Your task to perform on an android device: What's on my calendar today? Image 0: 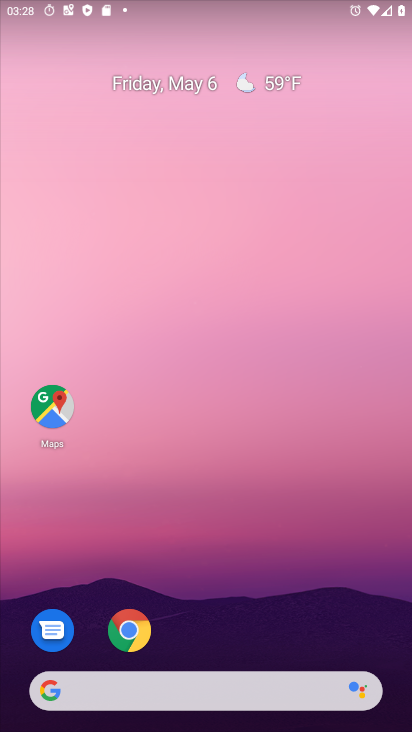
Step 0: drag from (225, 575) to (225, 201)
Your task to perform on an android device: What's on my calendar today? Image 1: 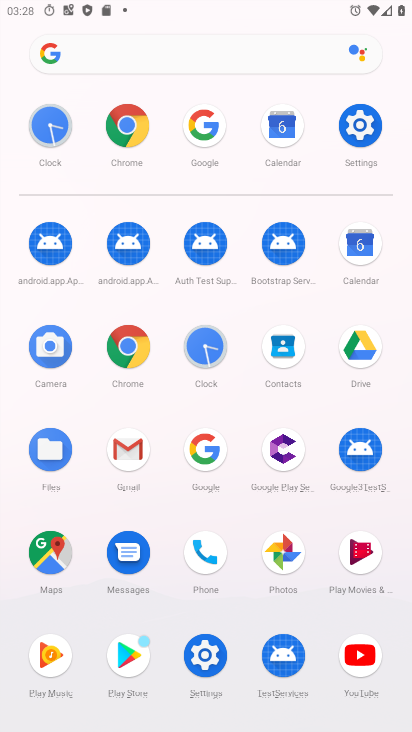
Step 1: click (364, 259)
Your task to perform on an android device: What's on my calendar today? Image 2: 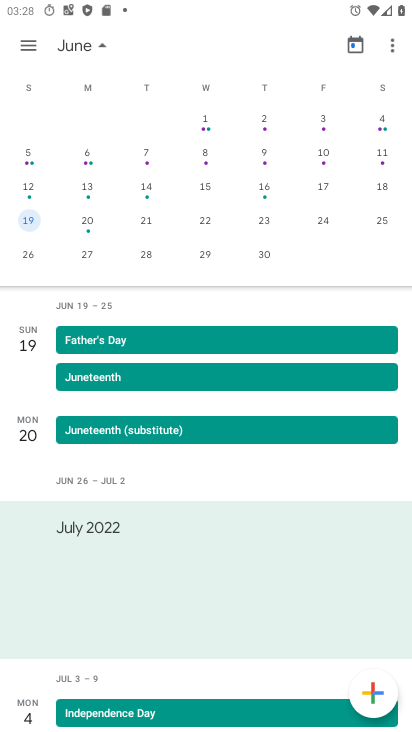
Step 2: drag from (80, 186) to (353, 227)
Your task to perform on an android device: What's on my calendar today? Image 3: 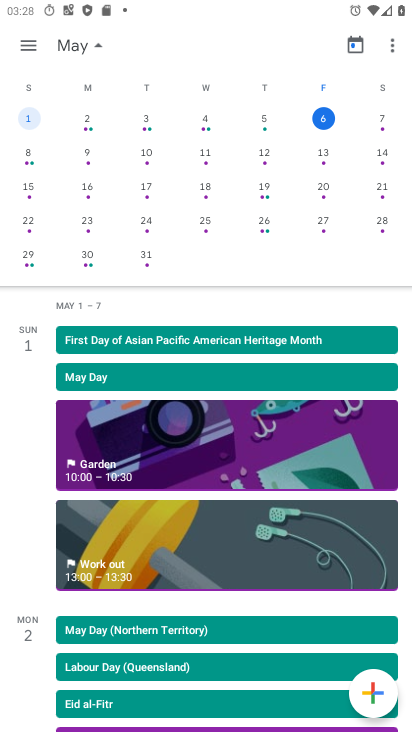
Step 3: click (325, 107)
Your task to perform on an android device: What's on my calendar today? Image 4: 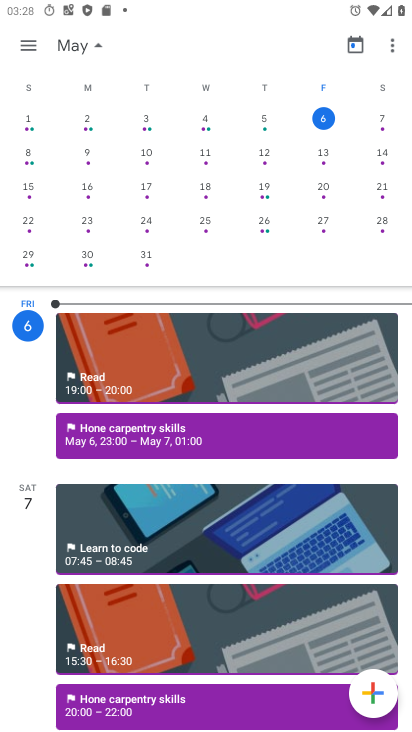
Step 4: task complete